Your task to perform on an android device: open app "Truecaller" Image 0: 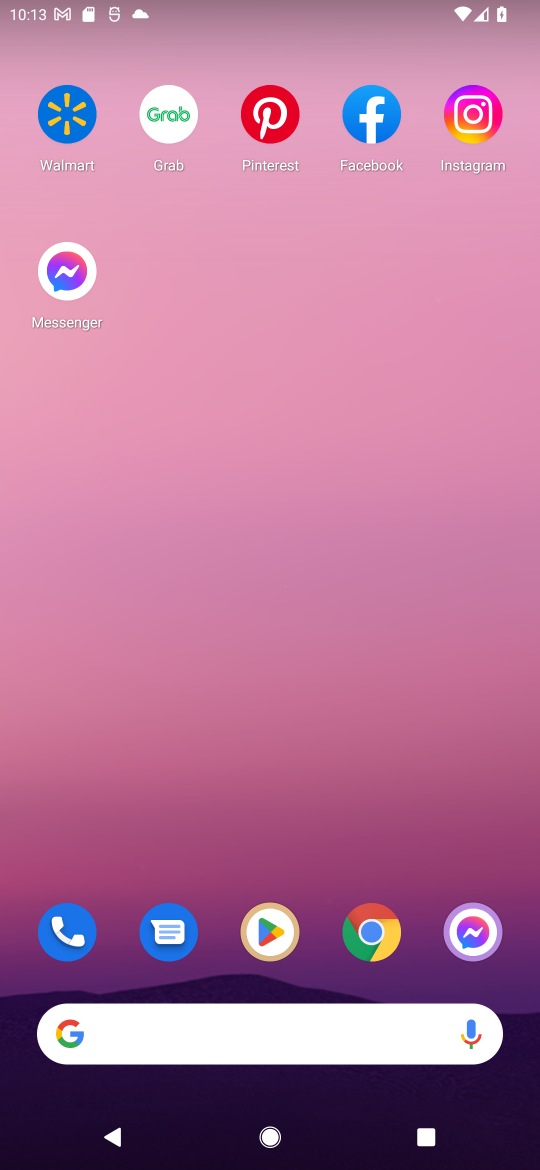
Step 0: click (243, 938)
Your task to perform on an android device: open app "Truecaller" Image 1: 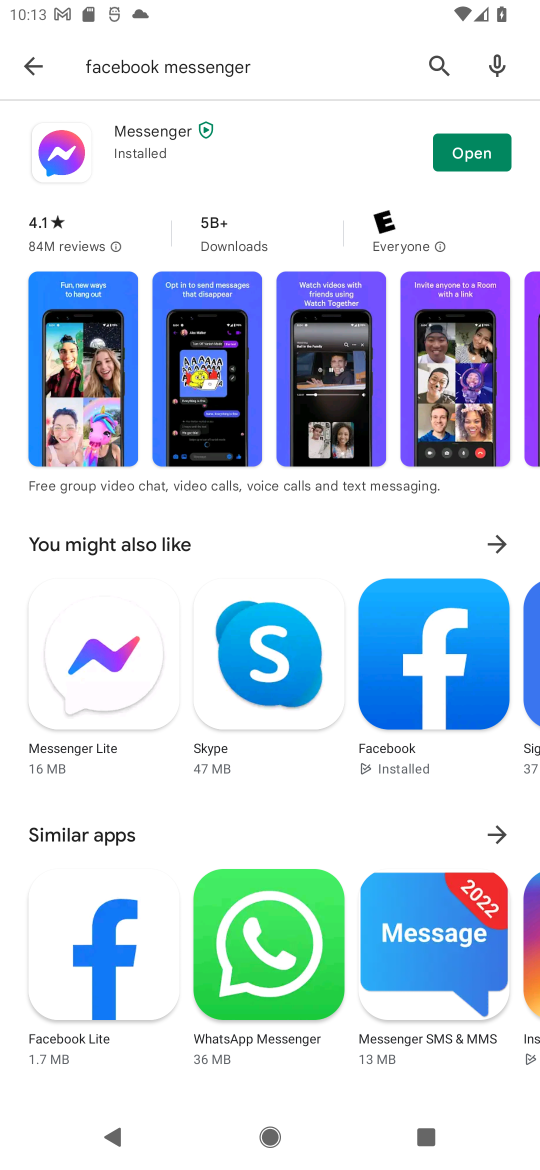
Step 1: click (433, 63)
Your task to perform on an android device: open app "Truecaller" Image 2: 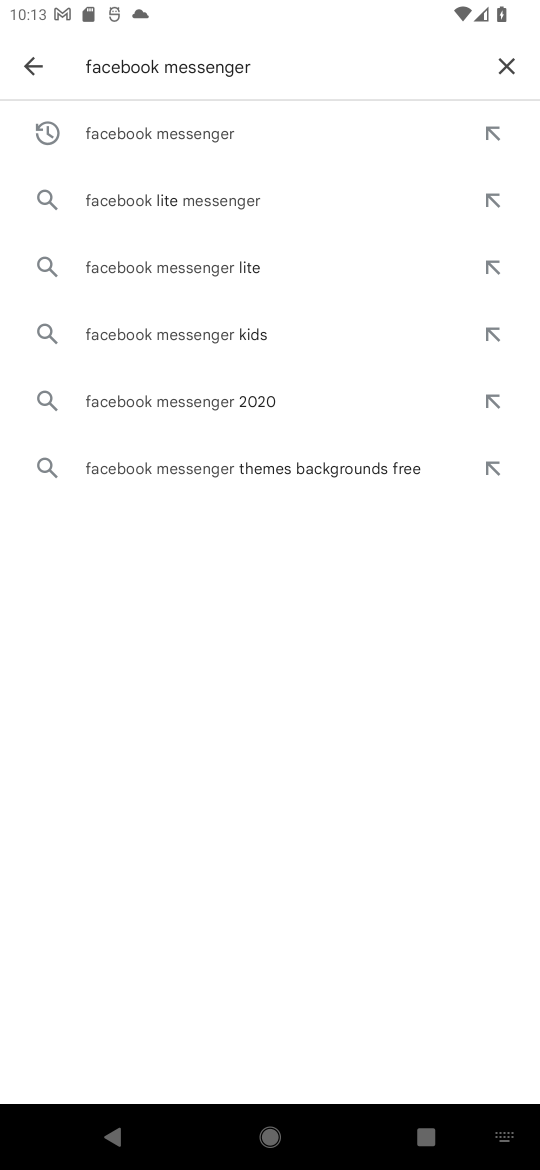
Step 2: click (511, 65)
Your task to perform on an android device: open app "Truecaller" Image 3: 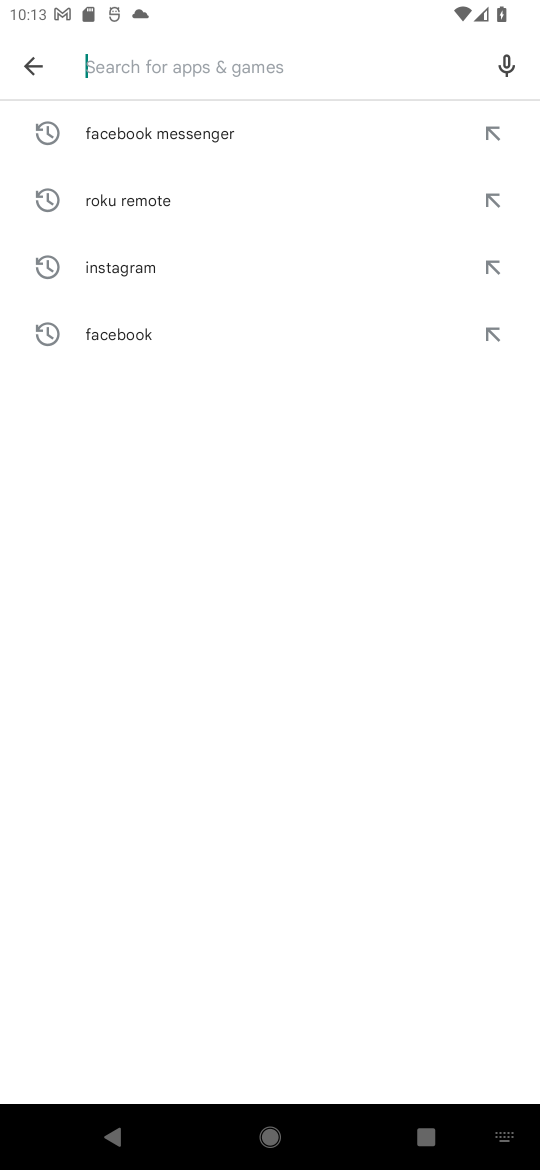
Step 3: type "truecaller"
Your task to perform on an android device: open app "Truecaller" Image 4: 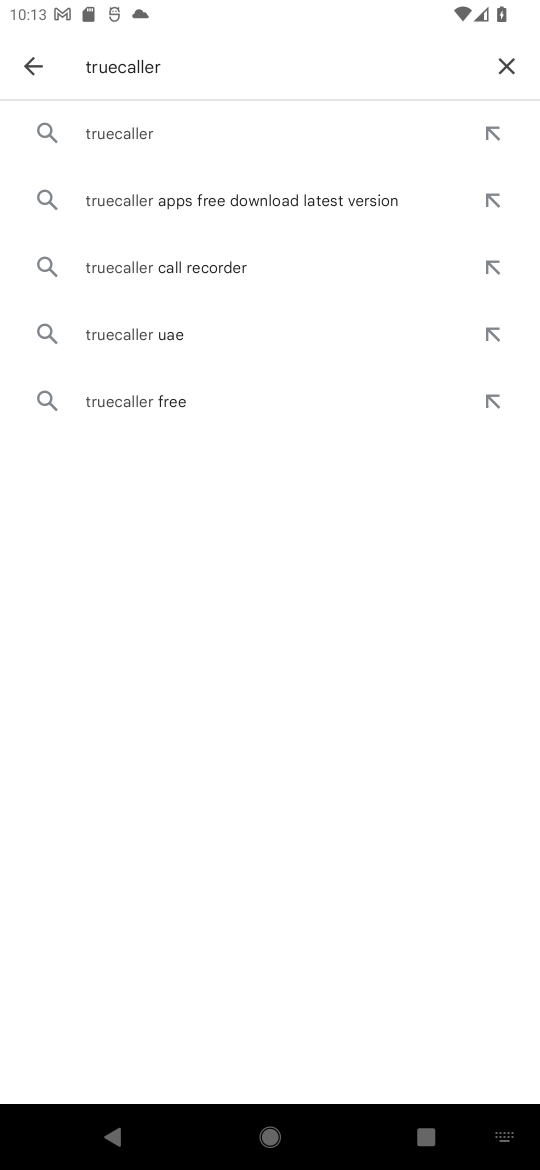
Step 4: click (198, 135)
Your task to perform on an android device: open app "Truecaller" Image 5: 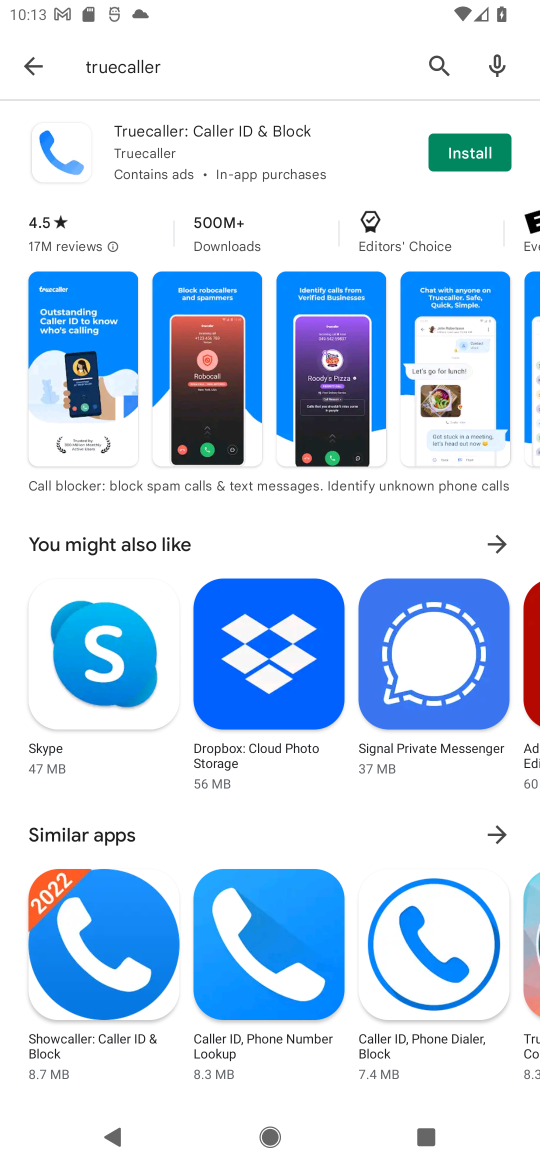
Step 5: task complete